Your task to perform on an android device: toggle translation in the chrome app Image 0: 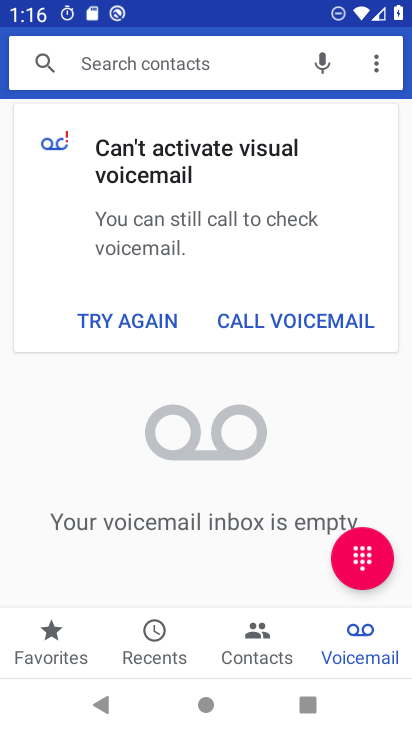
Step 0: press home button
Your task to perform on an android device: toggle translation in the chrome app Image 1: 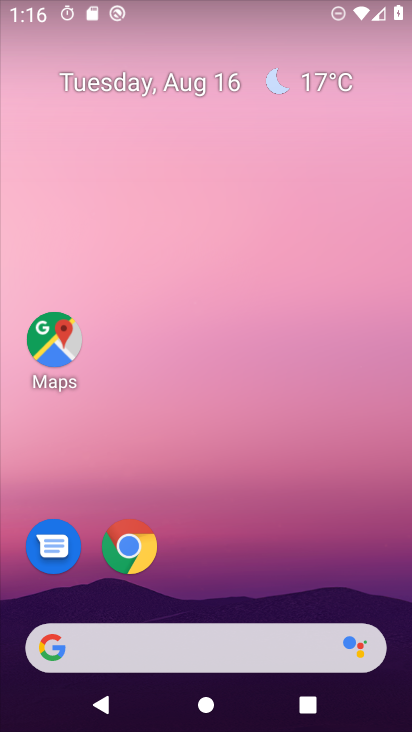
Step 1: click (129, 545)
Your task to perform on an android device: toggle translation in the chrome app Image 2: 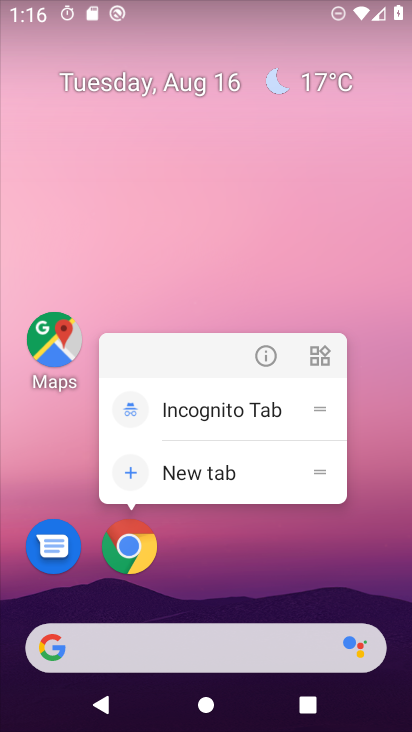
Step 2: click (127, 545)
Your task to perform on an android device: toggle translation in the chrome app Image 3: 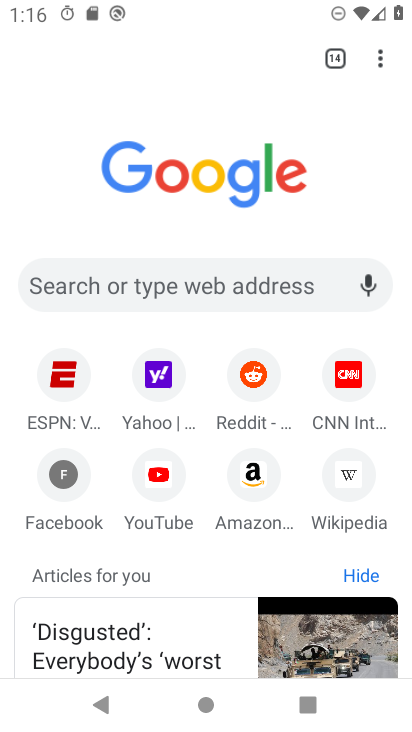
Step 3: click (381, 62)
Your task to perform on an android device: toggle translation in the chrome app Image 4: 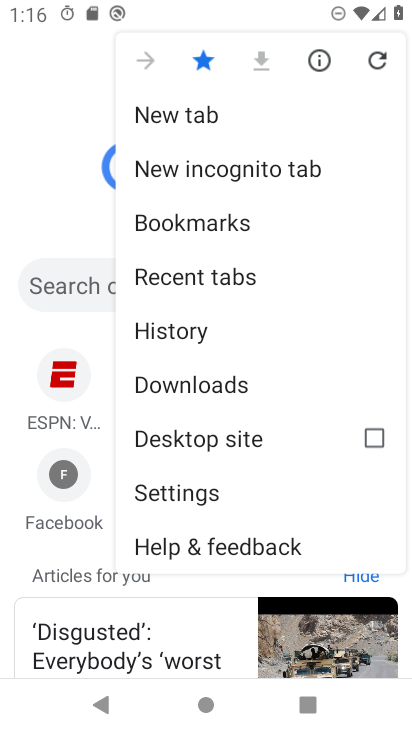
Step 4: click (185, 491)
Your task to perform on an android device: toggle translation in the chrome app Image 5: 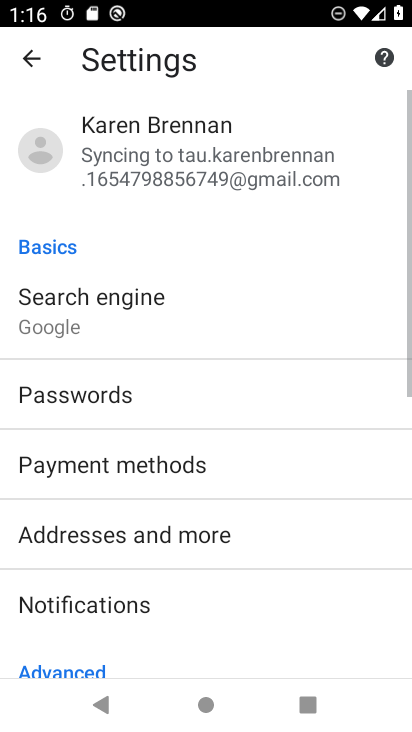
Step 5: drag from (169, 627) to (170, 305)
Your task to perform on an android device: toggle translation in the chrome app Image 6: 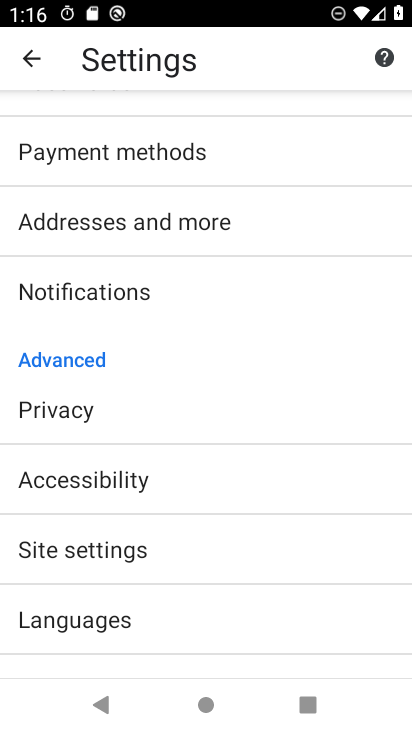
Step 6: click (125, 641)
Your task to perform on an android device: toggle translation in the chrome app Image 7: 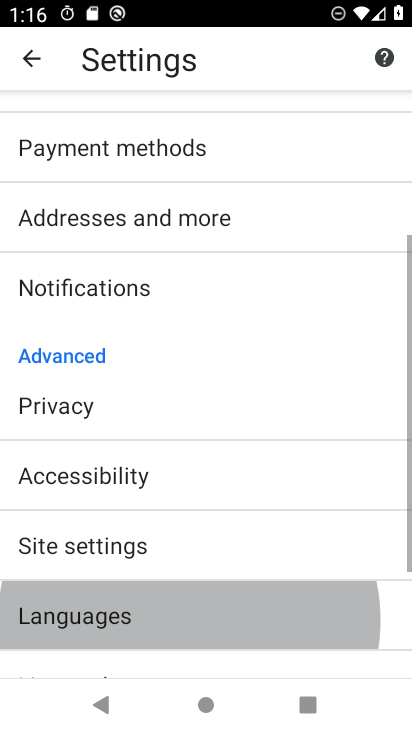
Step 7: drag from (125, 599) to (132, 492)
Your task to perform on an android device: toggle translation in the chrome app Image 8: 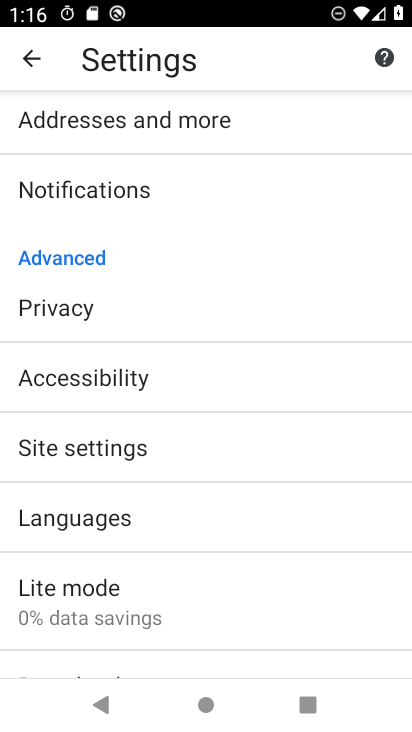
Step 8: click (102, 519)
Your task to perform on an android device: toggle translation in the chrome app Image 9: 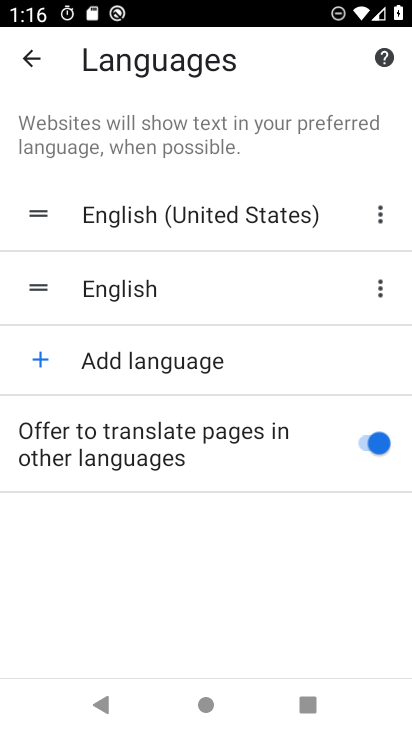
Step 9: click (376, 444)
Your task to perform on an android device: toggle translation in the chrome app Image 10: 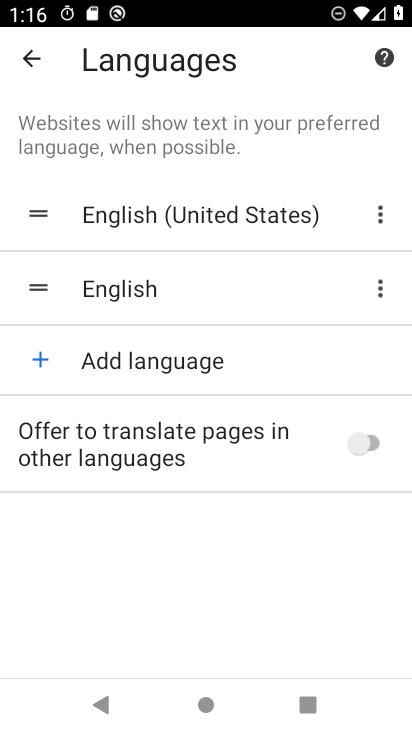
Step 10: task complete